Your task to perform on an android device: Open the stopwatch Image 0: 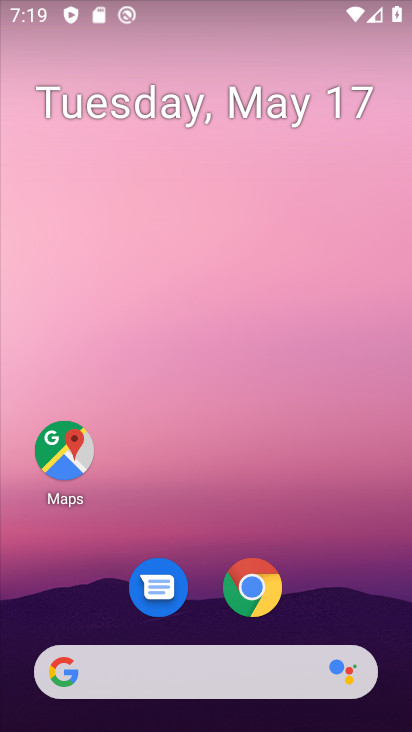
Step 0: drag from (357, 589) to (362, 82)
Your task to perform on an android device: Open the stopwatch Image 1: 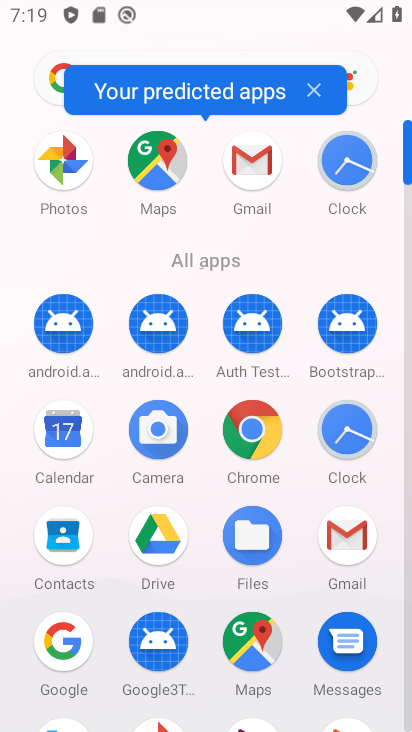
Step 1: click (353, 433)
Your task to perform on an android device: Open the stopwatch Image 2: 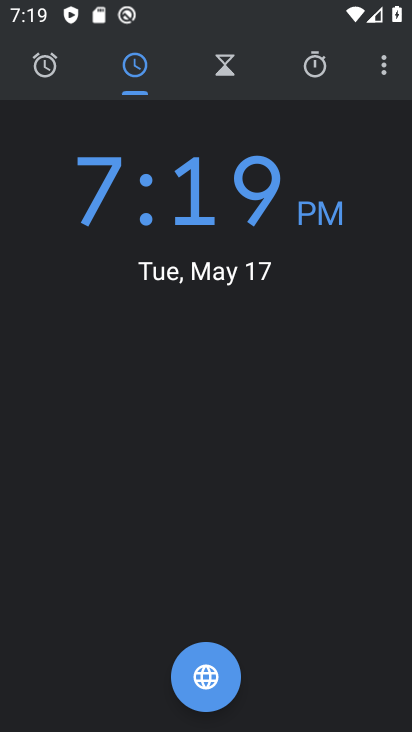
Step 2: click (319, 74)
Your task to perform on an android device: Open the stopwatch Image 3: 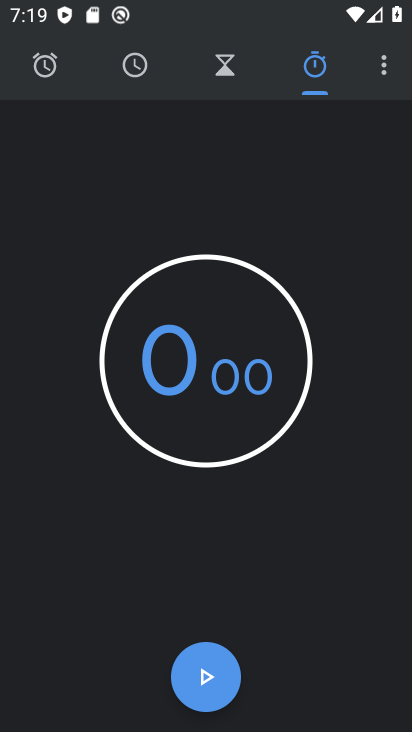
Step 3: task complete